Your task to perform on an android device: turn off airplane mode Image 0: 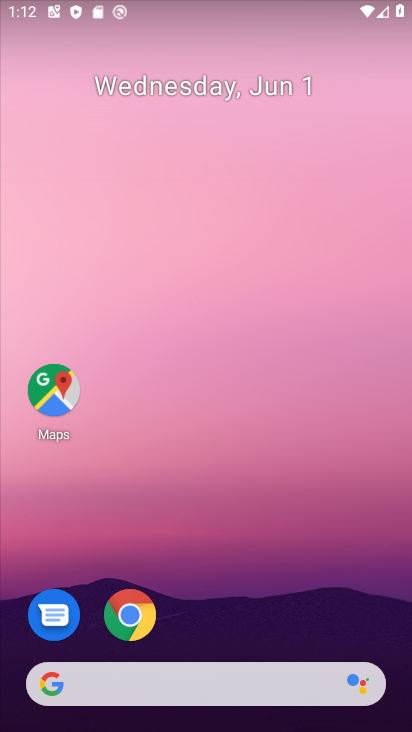
Step 0: task complete